Your task to perform on an android device: open device folders in google photos Image 0: 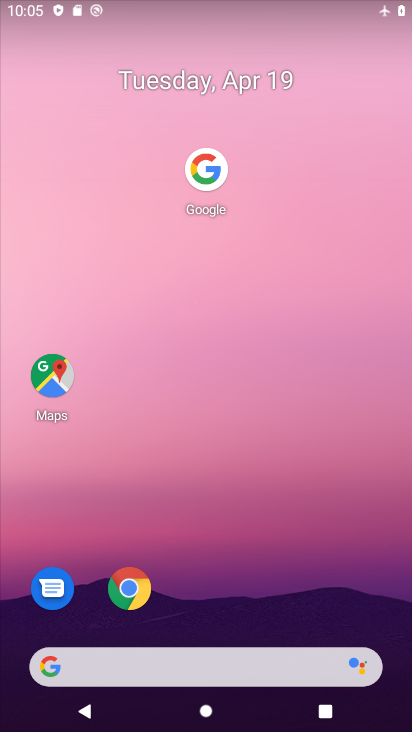
Step 0: drag from (255, 570) to (217, 6)
Your task to perform on an android device: open device folders in google photos Image 1: 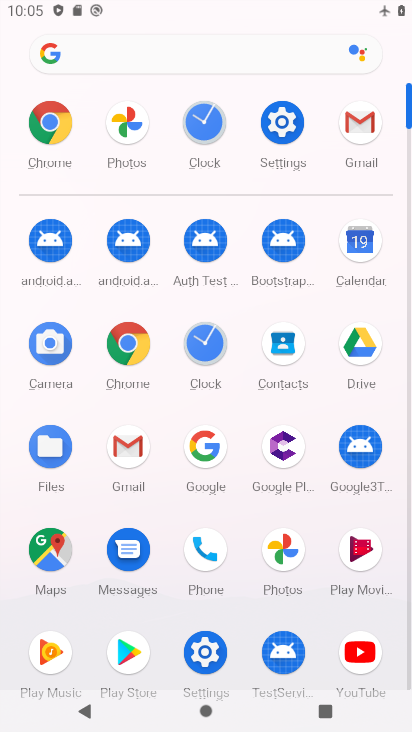
Step 1: click (124, 125)
Your task to perform on an android device: open device folders in google photos Image 2: 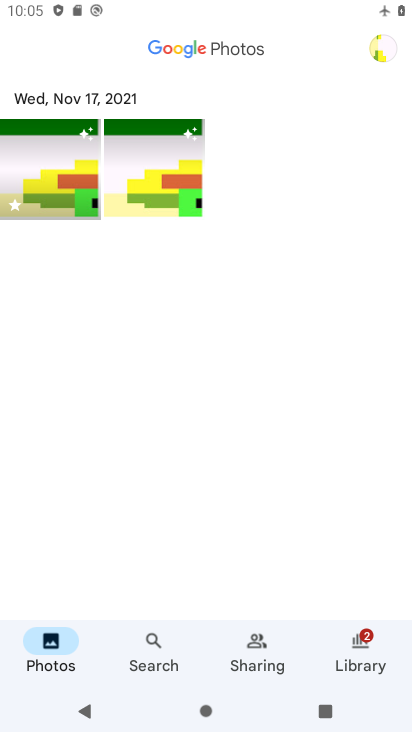
Step 2: click (350, 644)
Your task to perform on an android device: open device folders in google photos Image 3: 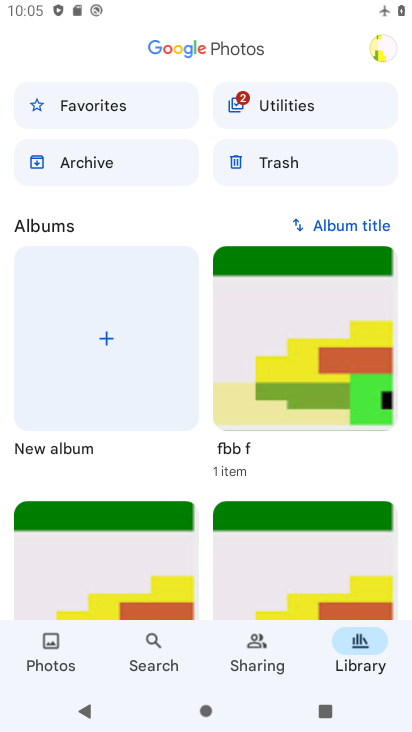
Step 3: click (379, 47)
Your task to perform on an android device: open device folders in google photos Image 4: 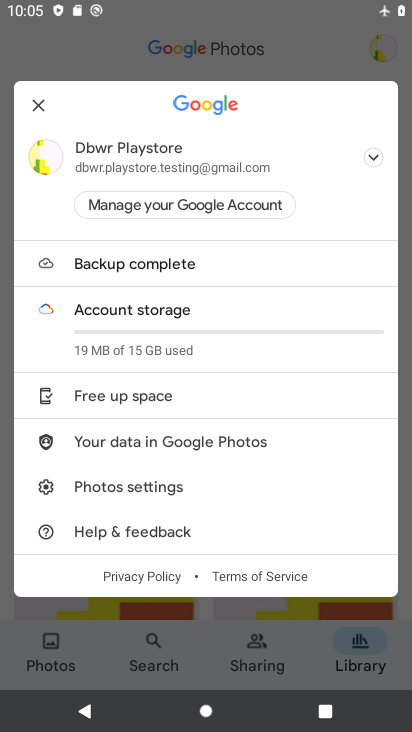
Step 4: drag from (148, 478) to (88, 82)
Your task to perform on an android device: open device folders in google photos Image 5: 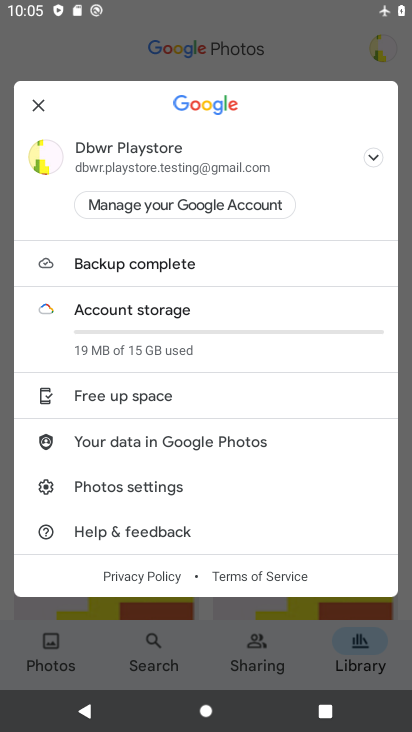
Step 5: click (40, 108)
Your task to perform on an android device: open device folders in google photos Image 6: 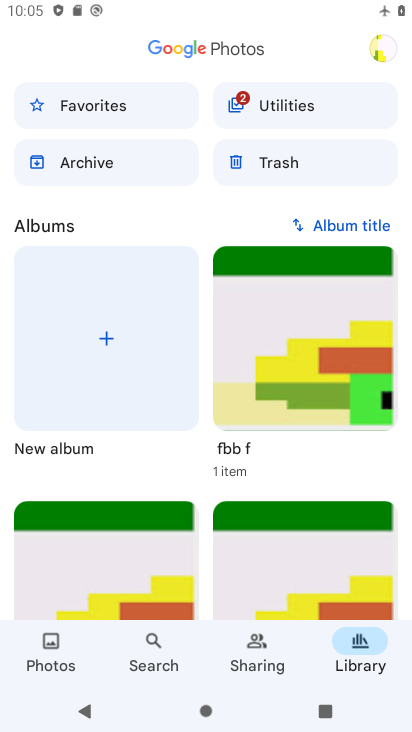
Step 6: drag from (113, 497) to (104, 57)
Your task to perform on an android device: open device folders in google photos Image 7: 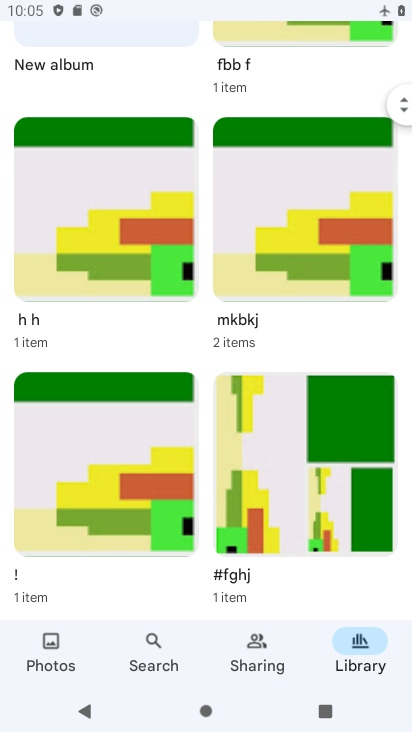
Step 7: drag from (135, 572) to (110, 181)
Your task to perform on an android device: open device folders in google photos Image 8: 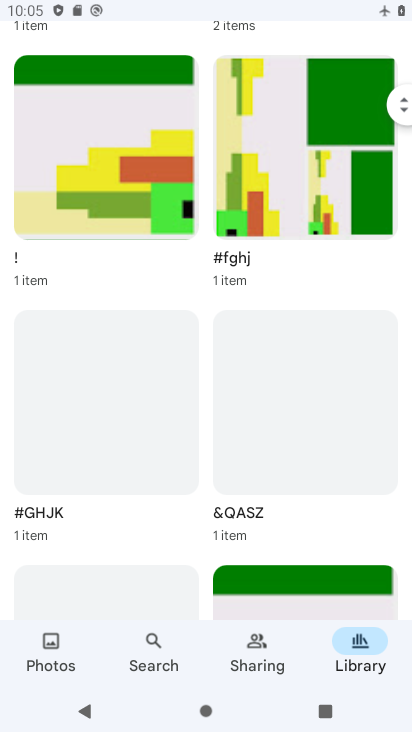
Step 8: click (151, 645)
Your task to perform on an android device: open device folders in google photos Image 9: 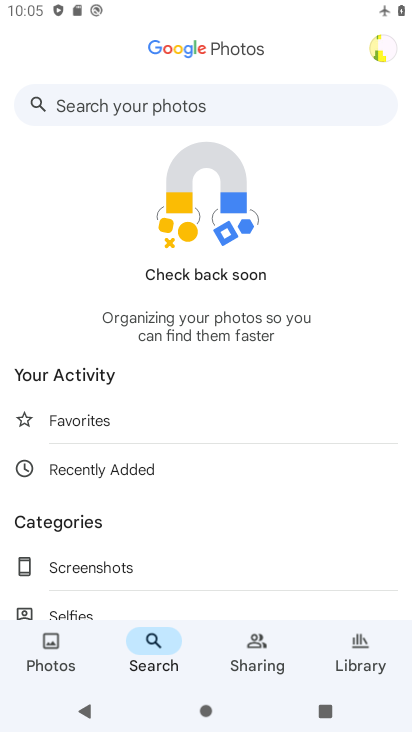
Step 9: drag from (119, 511) to (122, 102)
Your task to perform on an android device: open device folders in google photos Image 10: 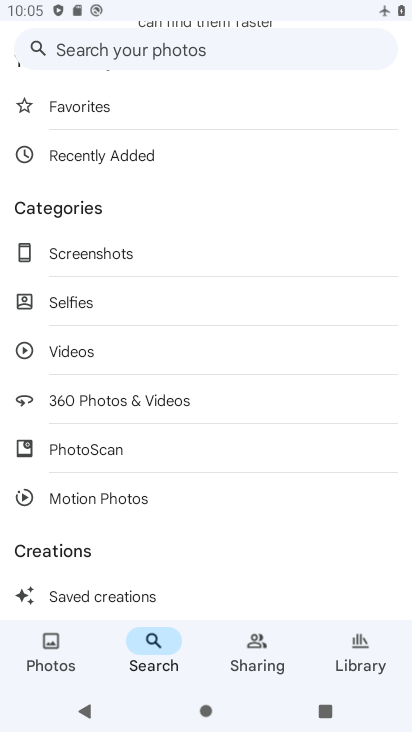
Step 10: drag from (134, 525) to (141, 130)
Your task to perform on an android device: open device folders in google photos Image 11: 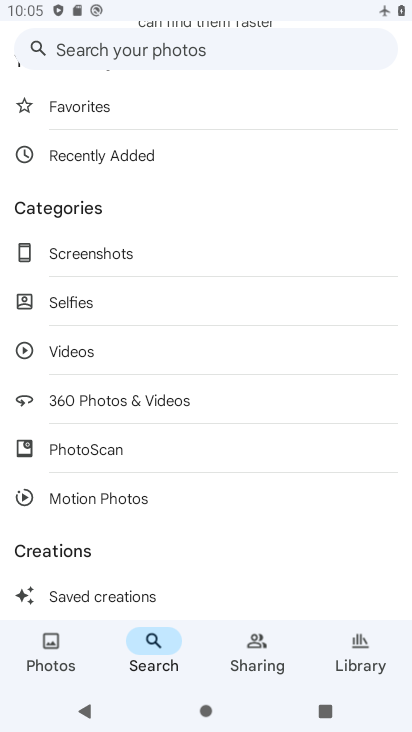
Step 11: drag from (159, 147) to (105, 659)
Your task to perform on an android device: open device folders in google photos Image 12: 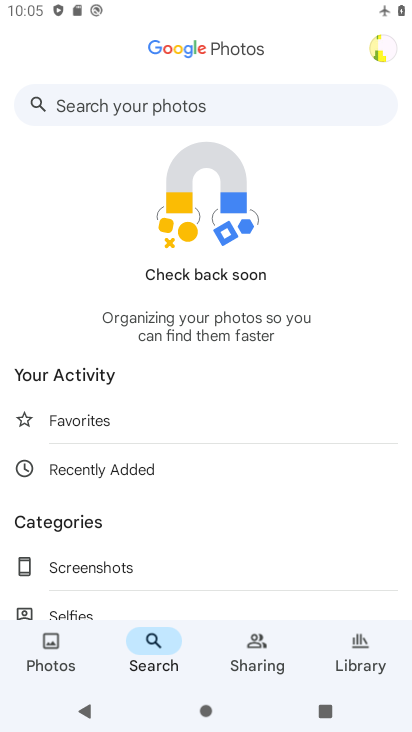
Step 12: click (168, 108)
Your task to perform on an android device: open device folders in google photos Image 13: 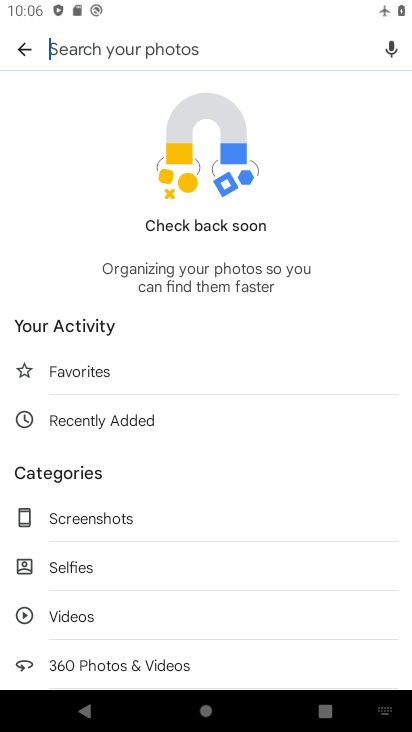
Step 13: type "device folders"
Your task to perform on an android device: open device folders in google photos Image 14: 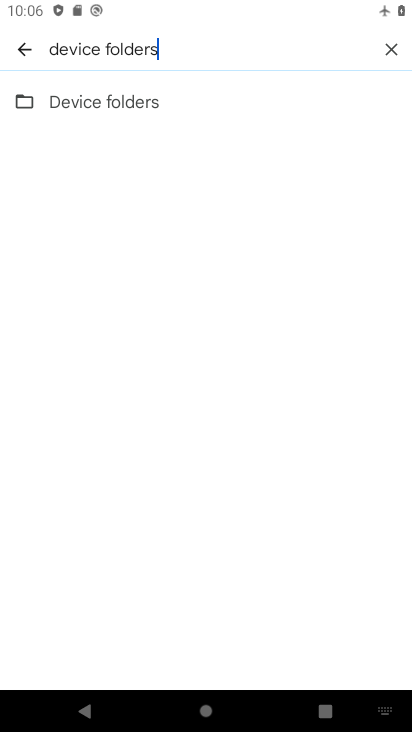
Step 14: click (109, 97)
Your task to perform on an android device: open device folders in google photos Image 15: 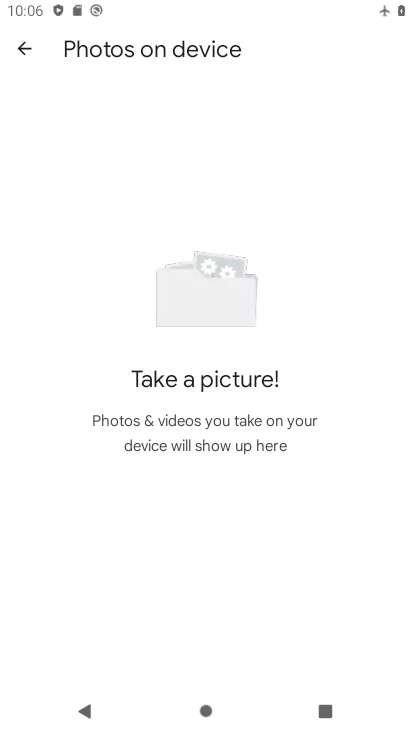
Step 15: task complete